Your task to perform on an android device: Open the web browser Image 0: 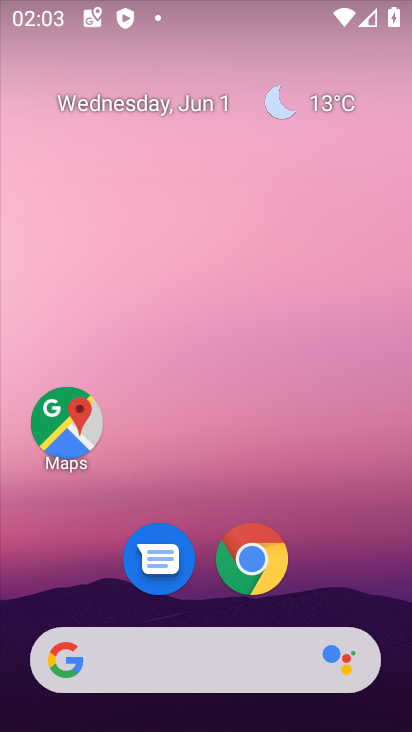
Step 0: click (269, 562)
Your task to perform on an android device: Open the web browser Image 1: 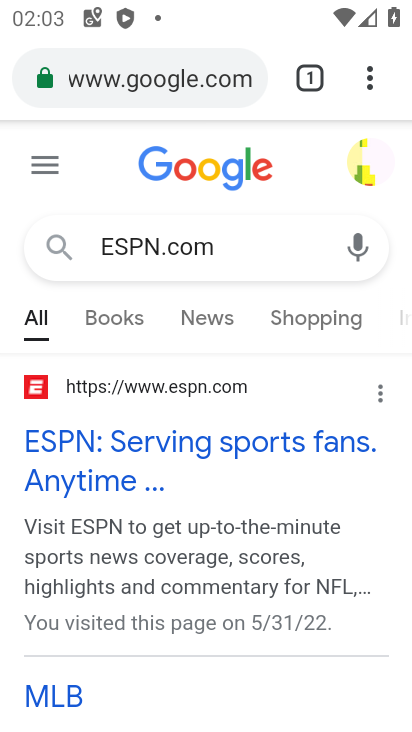
Step 1: task complete